Your task to perform on an android device: toggle improve location accuracy Image 0: 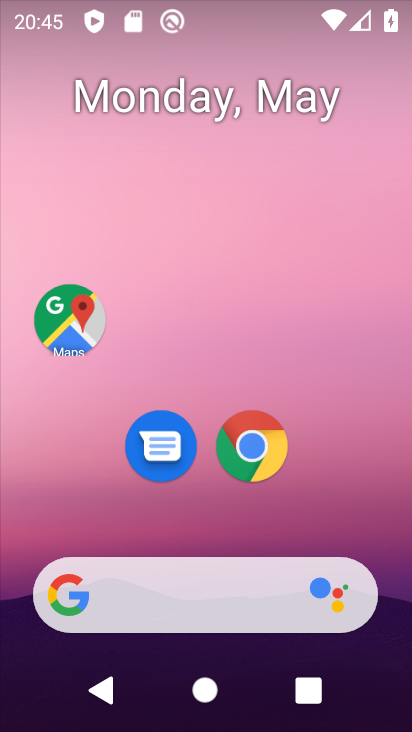
Step 0: drag from (350, 472) to (252, 64)
Your task to perform on an android device: toggle improve location accuracy Image 1: 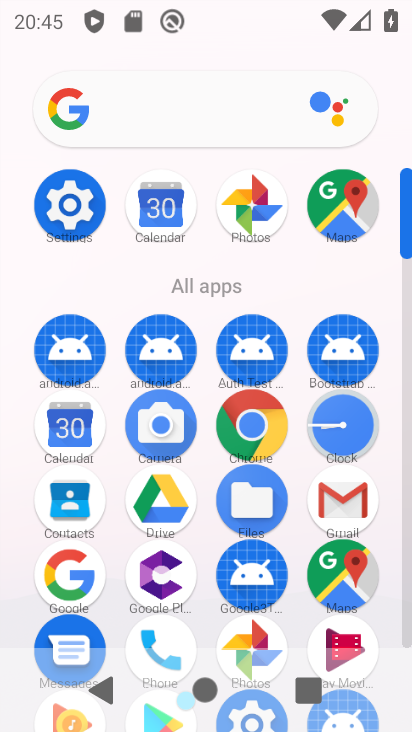
Step 1: click (78, 195)
Your task to perform on an android device: toggle improve location accuracy Image 2: 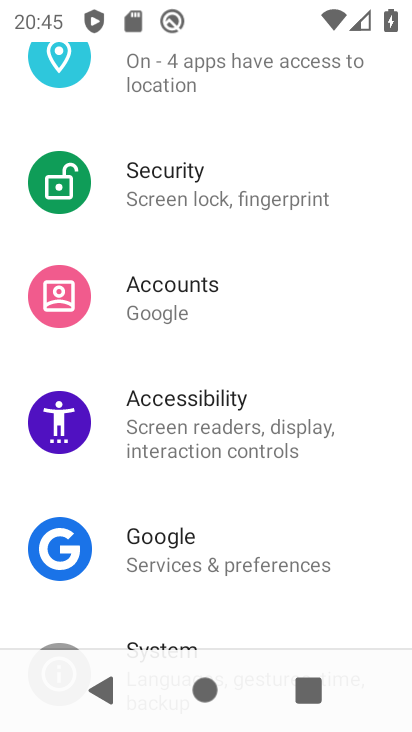
Step 2: drag from (216, 513) to (215, 83)
Your task to perform on an android device: toggle improve location accuracy Image 3: 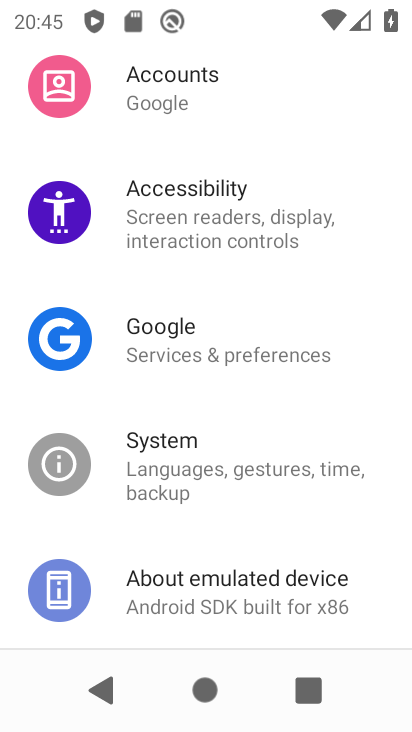
Step 3: drag from (206, 111) to (235, 496)
Your task to perform on an android device: toggle improve location accuracy Image 4: 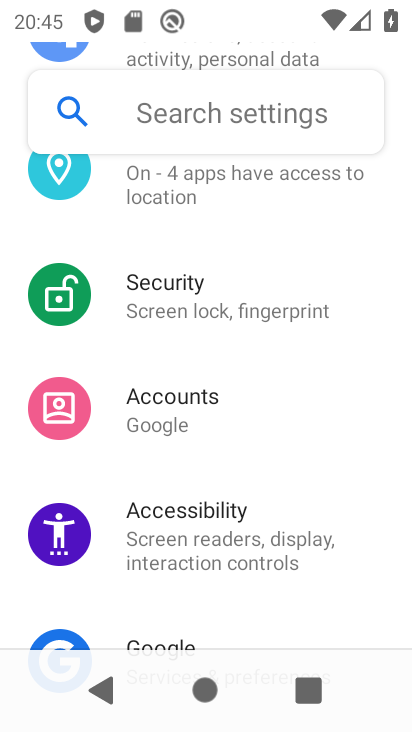
Step 4: drag from (274, 188) to (258, 530)
Your task to perform on an android device: toggle improve location accuracy Image 5: 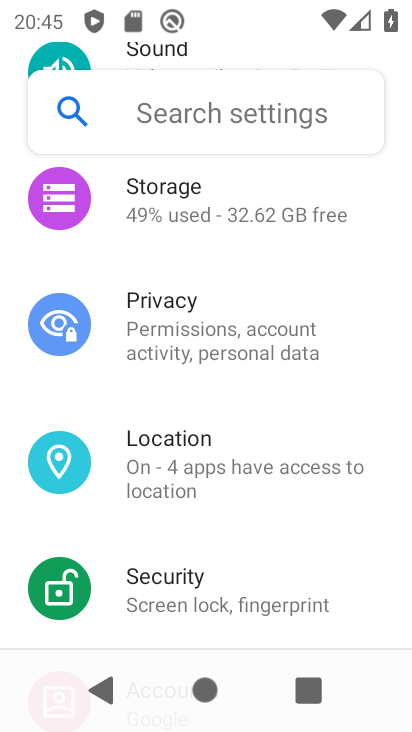
Step 5: drag from (250, 210) to (249, 573)
Your task to perform on an android device: toggle improve location accuracy Image 6: 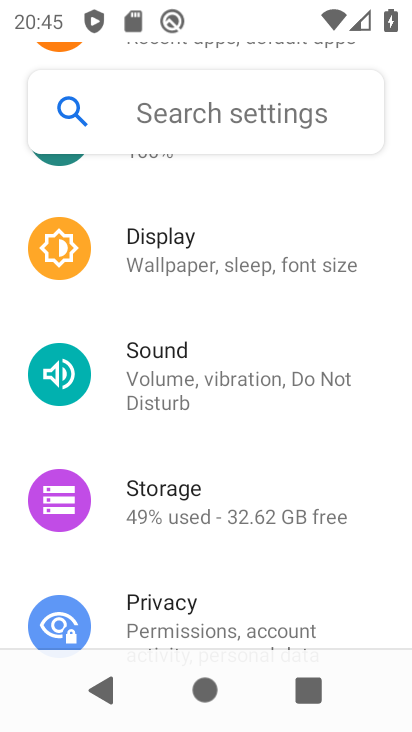
Step 6: drag from (271, 222) to (279, 568)
Your task to perform on an android device: toggle improve location accuracy Image 7: 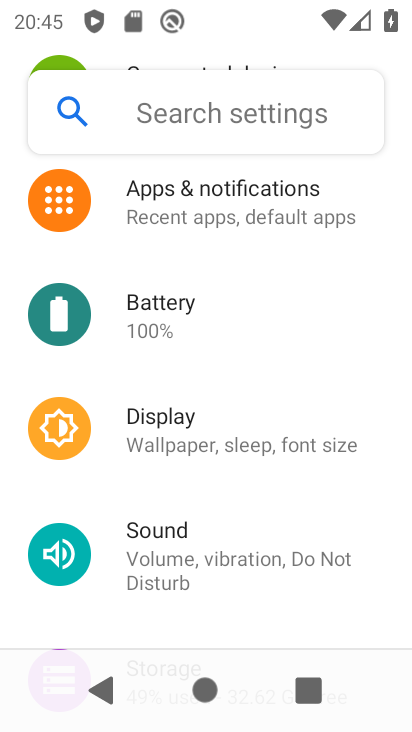
Step 7: drag from (266, 256) to (234, 119)
Your task to perform on an android device: toggle improve location accuracy Image 8: 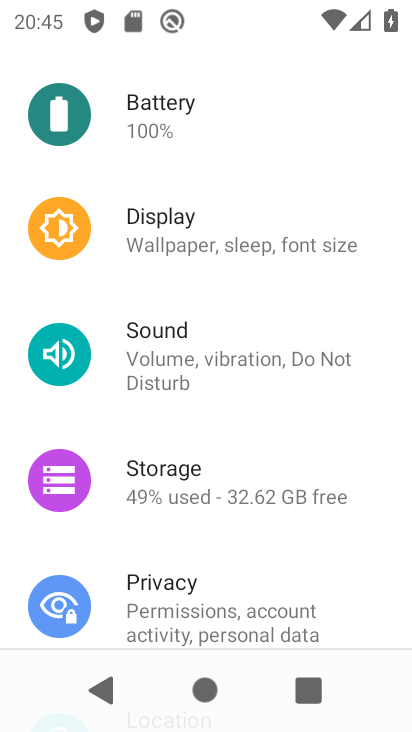
Step 8: drag from (253, 183) to (277, 624)
Your task to perform on an android device: toggle improve location accuracy Image 9: 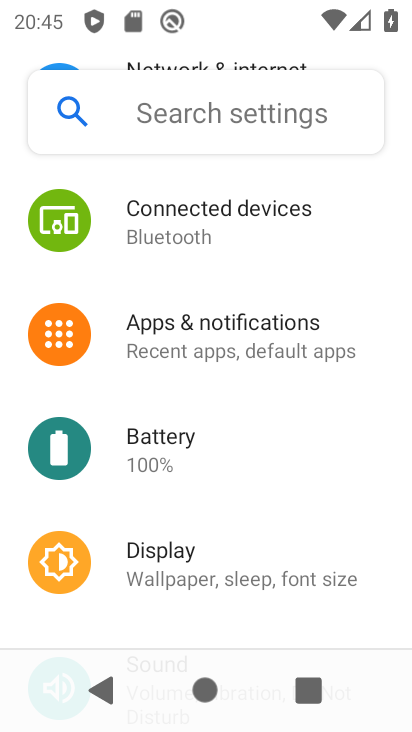
Step 9: drag from (248, 277) to (254, 650)
Your task to perform on an android device: toggle improve location accuracy Image 10: 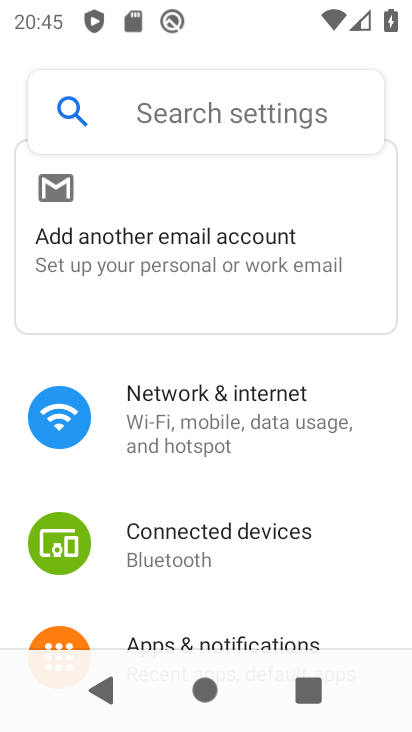
Step 10: drag from (252, 544) to (197, 107)
Your task to perform on an android device: toggle improve location accuracy Image 11: 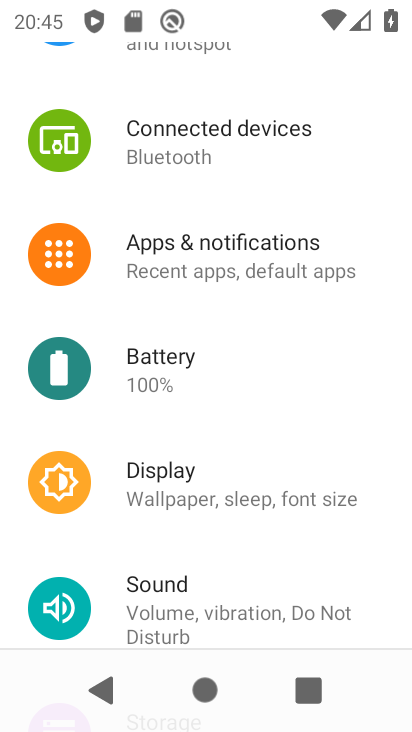
Step 11: drag from (197, 478) to (147, 73)
Your task to perform on an android device: toggle improve location accuracy Image 12: 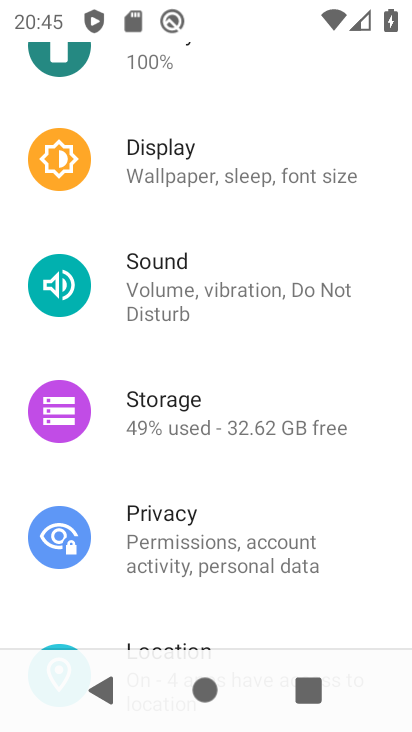
Step 12: drag from (217, 462) to (194, 65)
Your task to perform on an android device: toggle improve location accuracy Image 13: 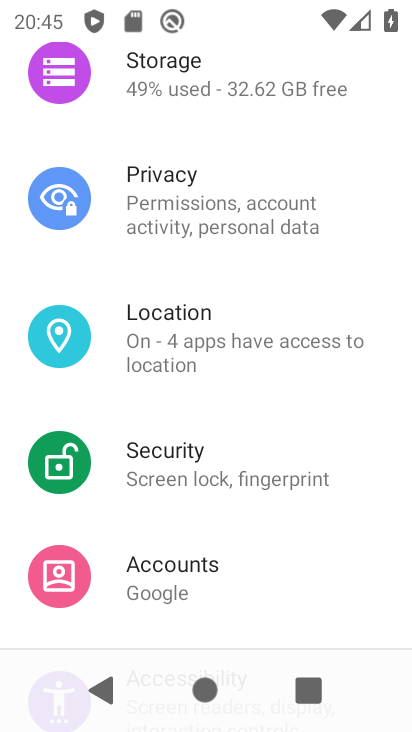
Step 13: click (153, 335)
Your task to perform on an android device: toggle improve location accuracy Image 14: 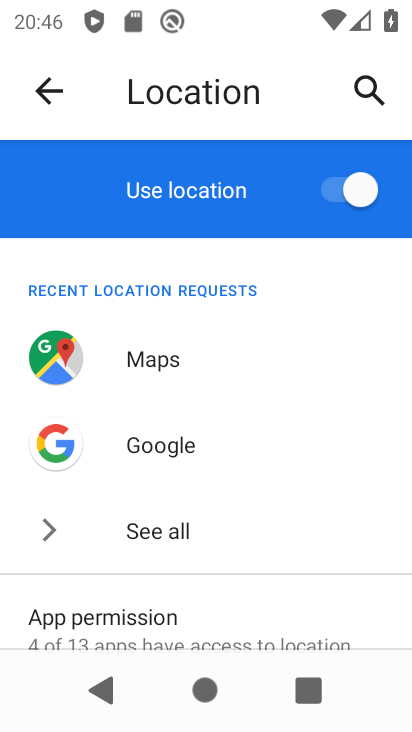
Step 14: drag from (281, 514) to (226, 122)
Your task to perform on an android device: toggle improve location accuracy Image 15: 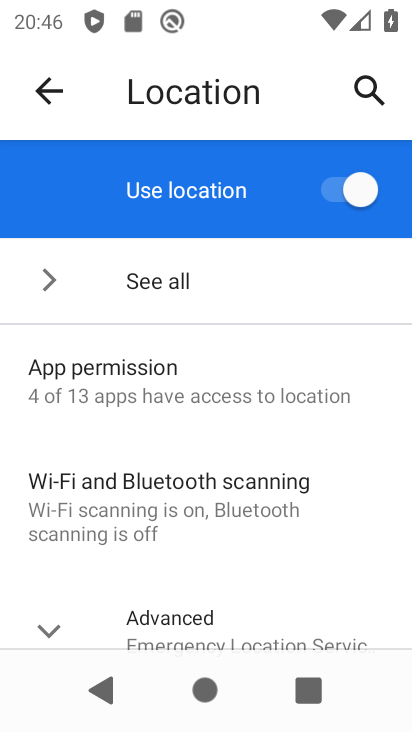
Step 15: drag from (229, 528) to (231, 235)
Your task to perform on an android device: toggle improve location accuracy Image 16: 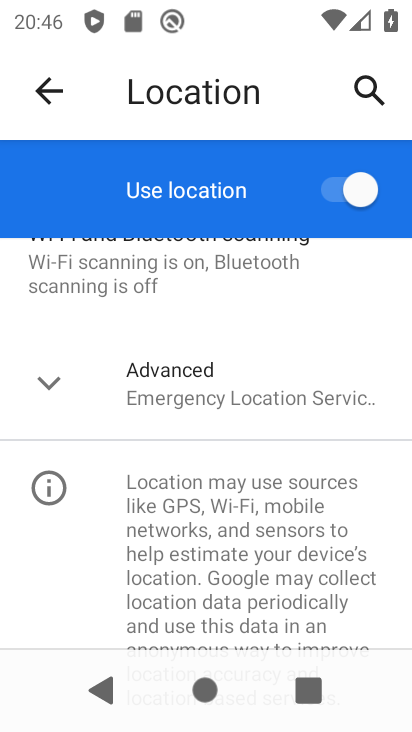
Step 16: click (170, 401)
Your task to perform on an android device: toggle improve location accuracy Image 17: 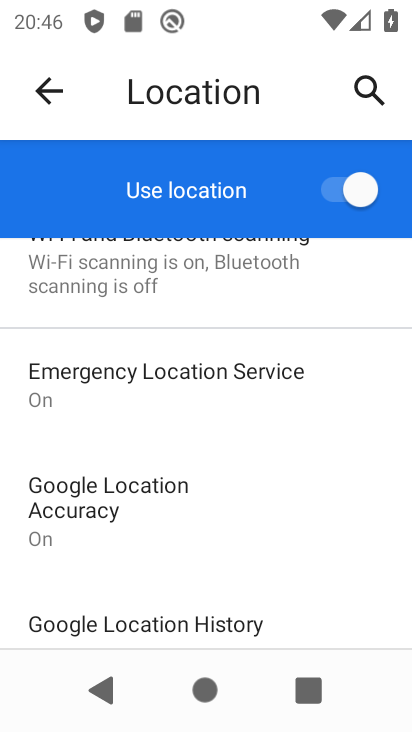
Step 17: click (142, 487)
Your task to perform on an android device: toggle improve location accuracy Image 18: 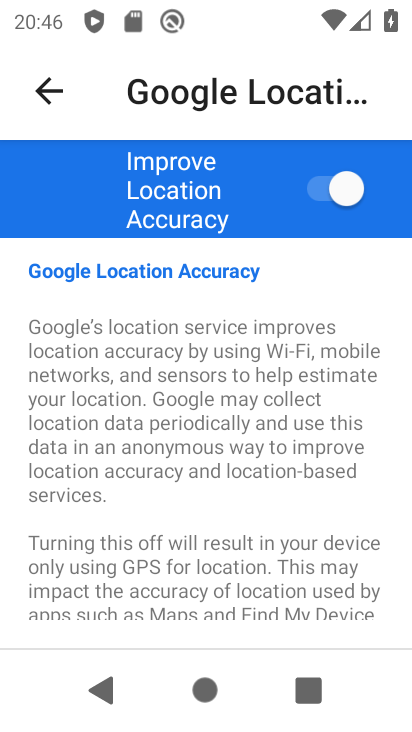
Step 18: click (342, 198)
Your task to perform on an android device: toggle improve location accuracy Image 19: 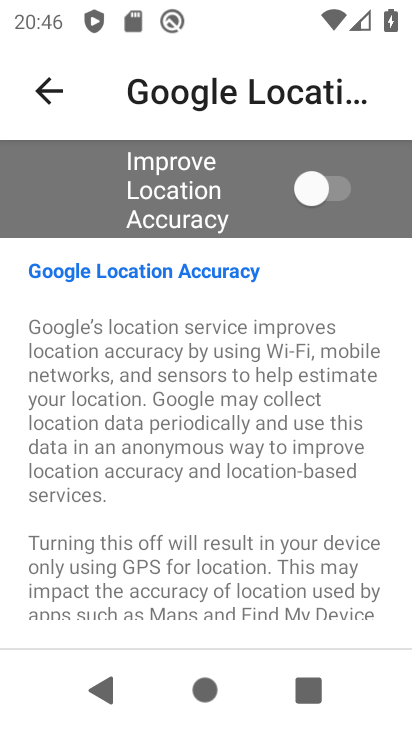
Step 19: task complete